Your task to perform on an android device: Go to battery settings Image 0: 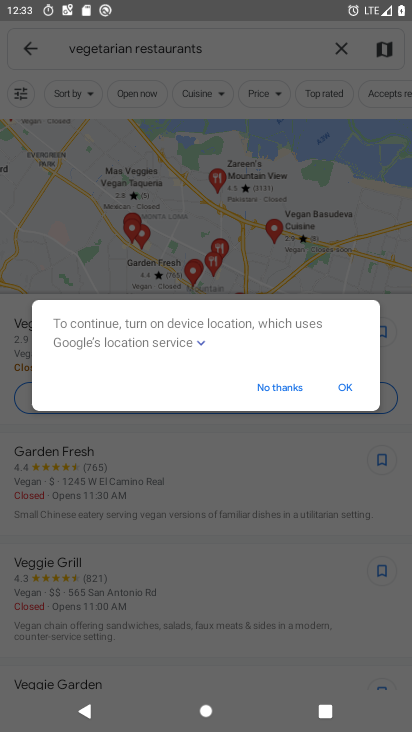
Step 0: press home button
Your task to perform on an android device: Go to battery settings Image 1: 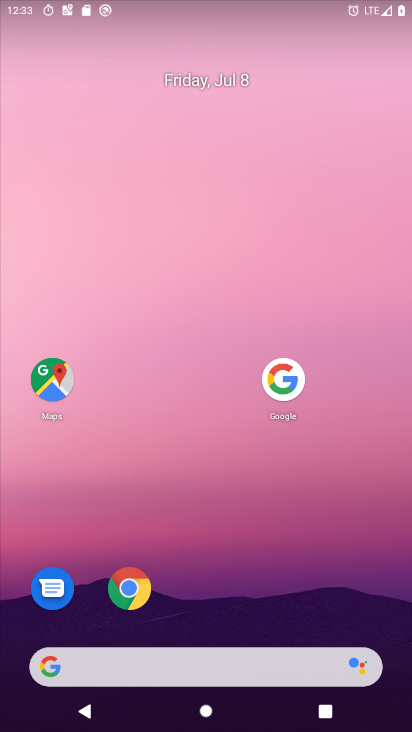
Step 1: drag from (146, 665) to (265, 92)
Your task to perform on an android device: Go to battery settings Image 2: 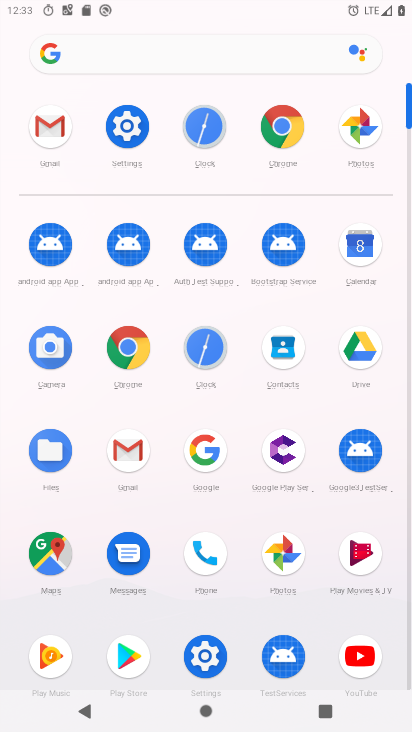
Step 2: click (133, 126)
Your task to perform on an android device: Go to battery settings Image 3: 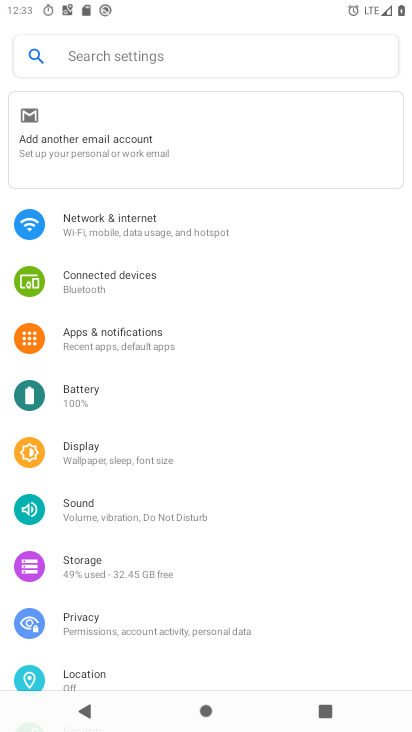
Step 3: click (69, 393)
Your task to perform on an android device: Go to battery settings Image 4: 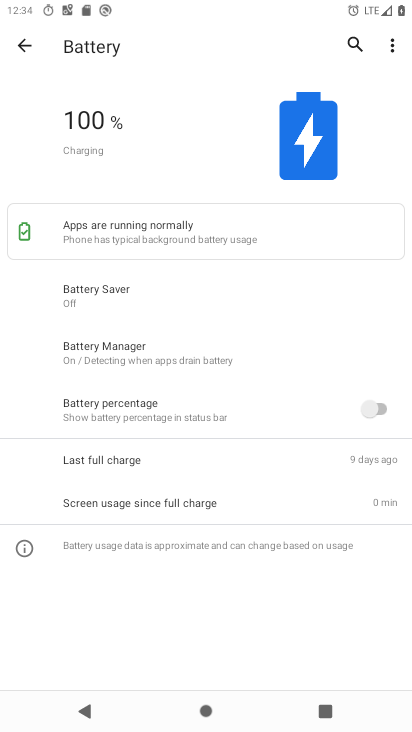
Step 4: task complete